Your task to perform on an android device: View the shopping cart on walmart. Add macbook pro 15 inch to the cart on walmart, then select checkout. Image 0: 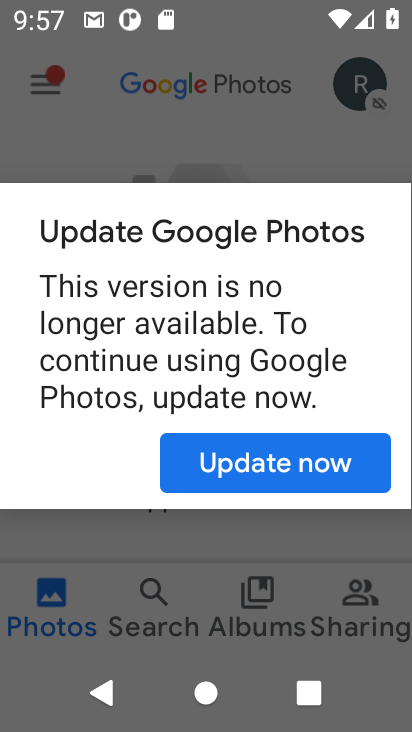
Step 0: press home button
Your task to perform on an android device: View the shopping cart on walmart. Add macbook pro 15 inch to the cart on walmart, then select checkout. Image 1: 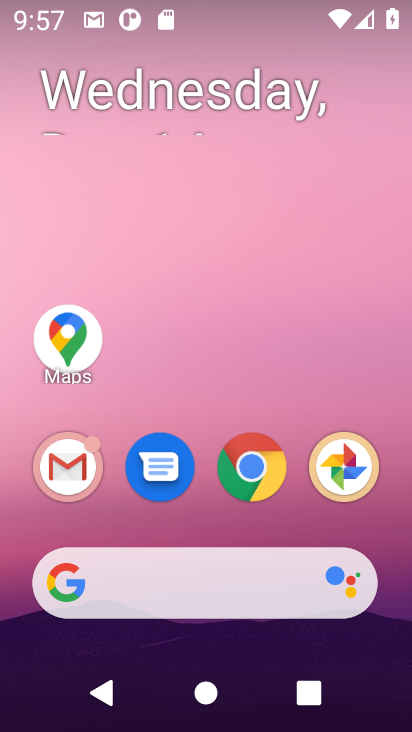
Step 1: click (256, 490)
Your task to perform on an android device: View the shopping cart on walmart. Add macbook pro 15 inch to the cart on walmart, then select checkout. Image 2: 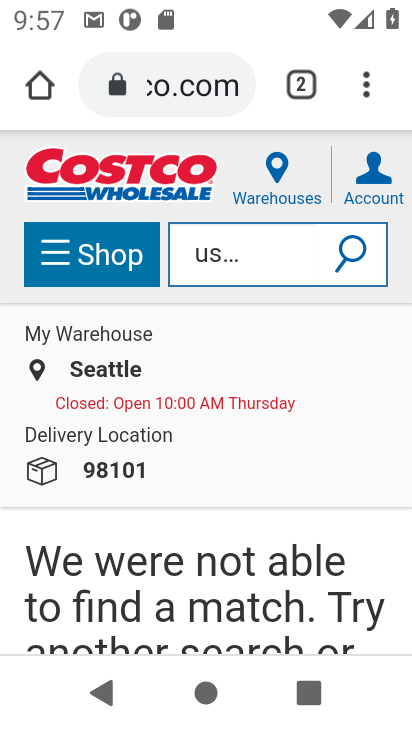
Step 2: task complete